Your task to perform on an android device: see tabs open on other devices in the chrome app Image 0: 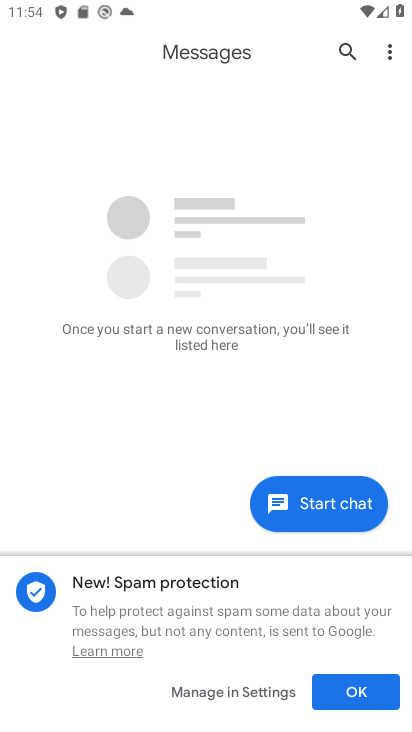
Step 0: press home button
Your task to perform on an android device: see tabs open on other devices in the chrome app Image 1: 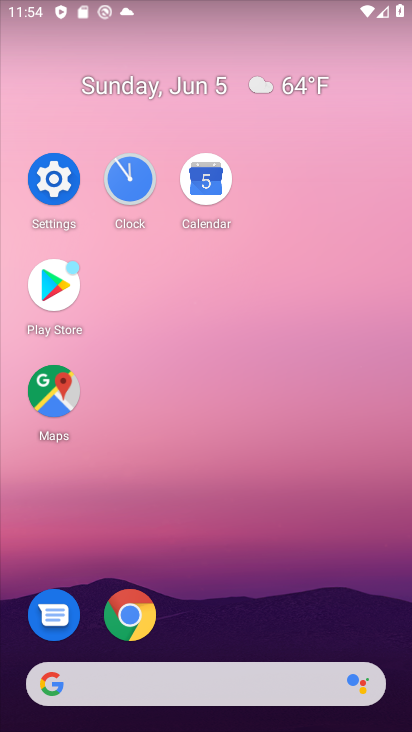
Step 1: click (131, 617)
Your task to perform on an android device: see tabs open on other devices in the chrome app Image 2: 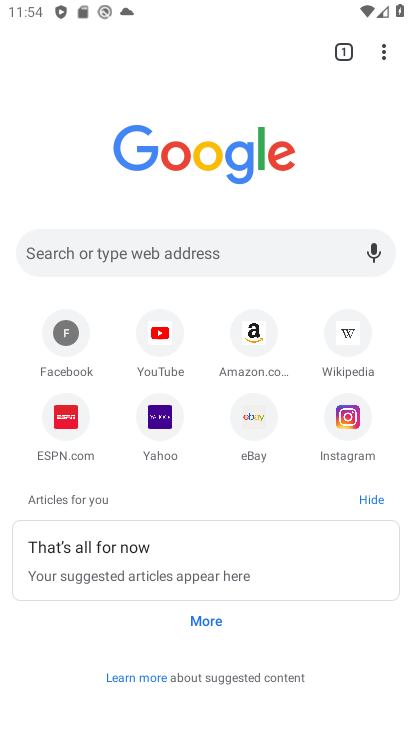
Step 2: click (377, 54)
Your task to perform on an android device: see tabs open on other devices in the chrome app Image 3: 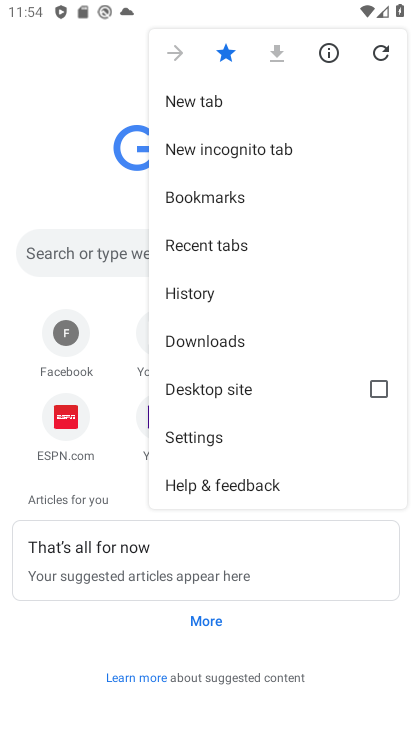
Step 3: click (286, 250)
Your task to perform on an android device: see tabs open on other devices in the chrome app Image 4: 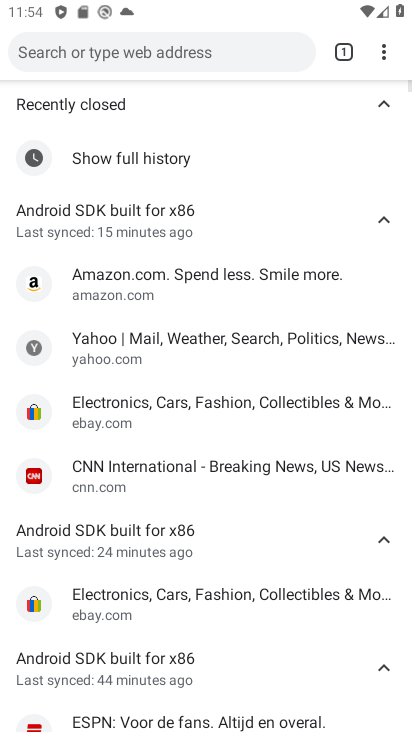
Step 4: task complete